Your task to perform on an android device: refresh tabs in the chrome app Image 0: 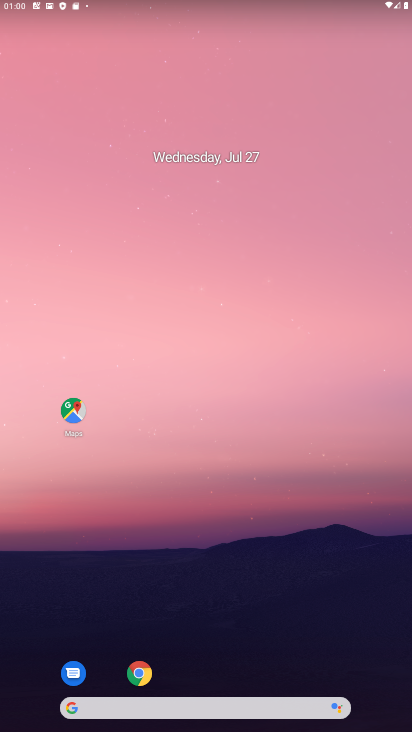
Step 0: drag from (272, 716) to (282, 318)
Your task to perform on an android device: refresh tabs in the chrome app Image 1: 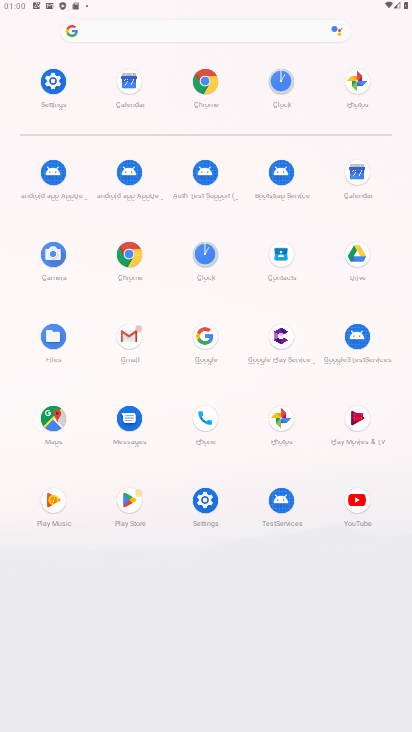
Step 1: click (206, 84)
Your task to perform on an android device: refresh tabs in the chrome app Image 2: 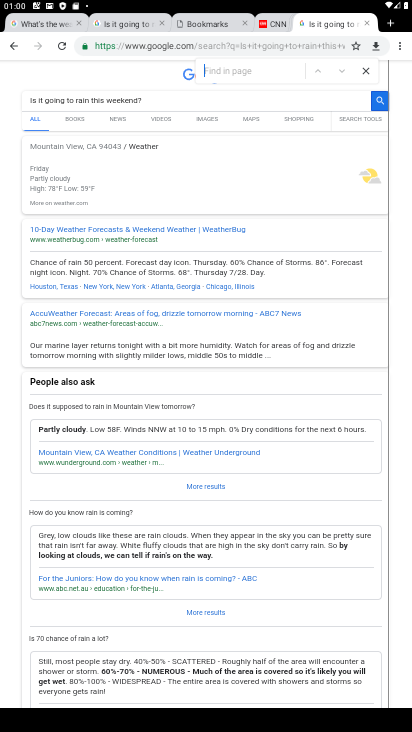
Step 2: click (56, 45)
Your task to perform on an android device: refresh tabs in the chrome app Image 3: 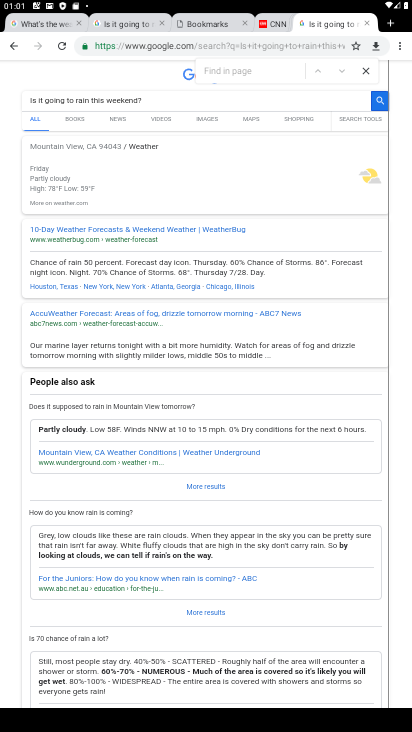
Step 3: click (56, 45)
Your task to perform on an android device: refresh tabs in the chrome app Image 4: 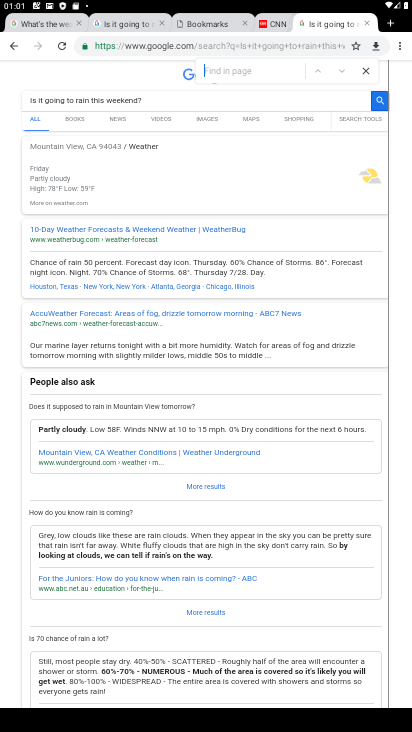
Step 4: task complete